Your task to perform on an android device: change the clock style Image 0: 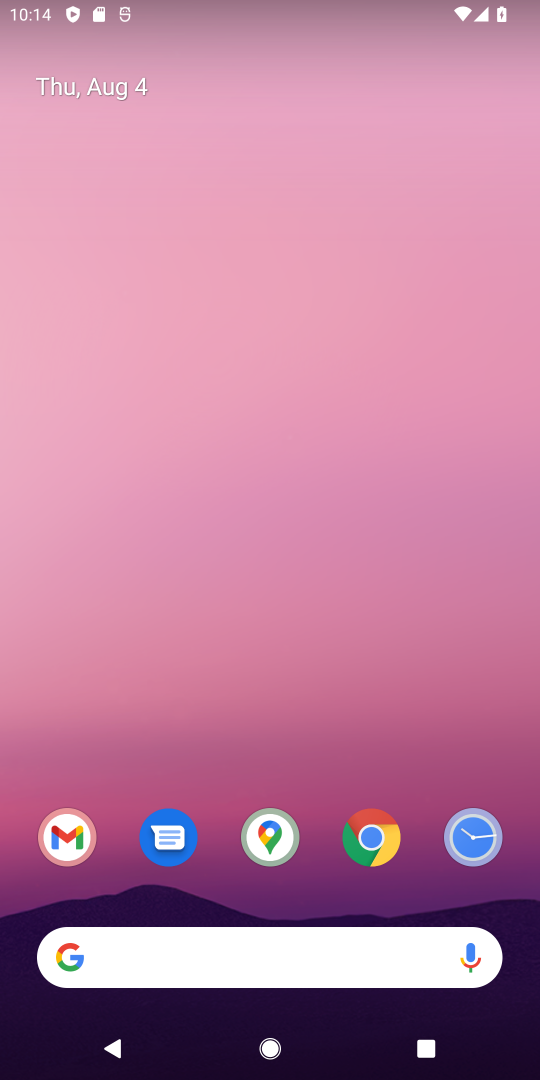
Step 0: drag from (408, 796) to (151, 74)
Your task to perform on an android device: change the clock style Image 1: 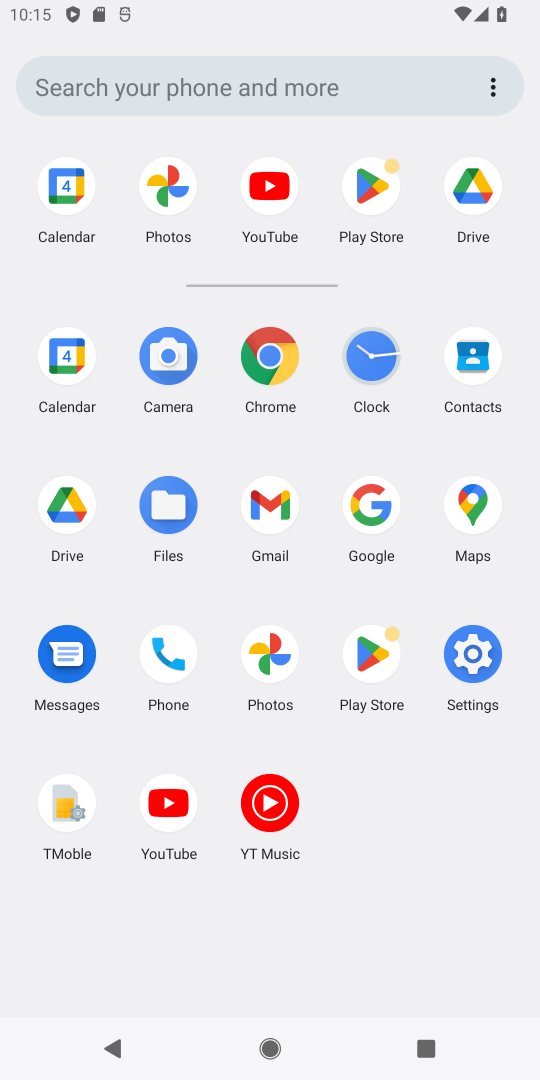
Step 1: click (374, 367)
Your task to perform on an android device: change the clock style Image 2: 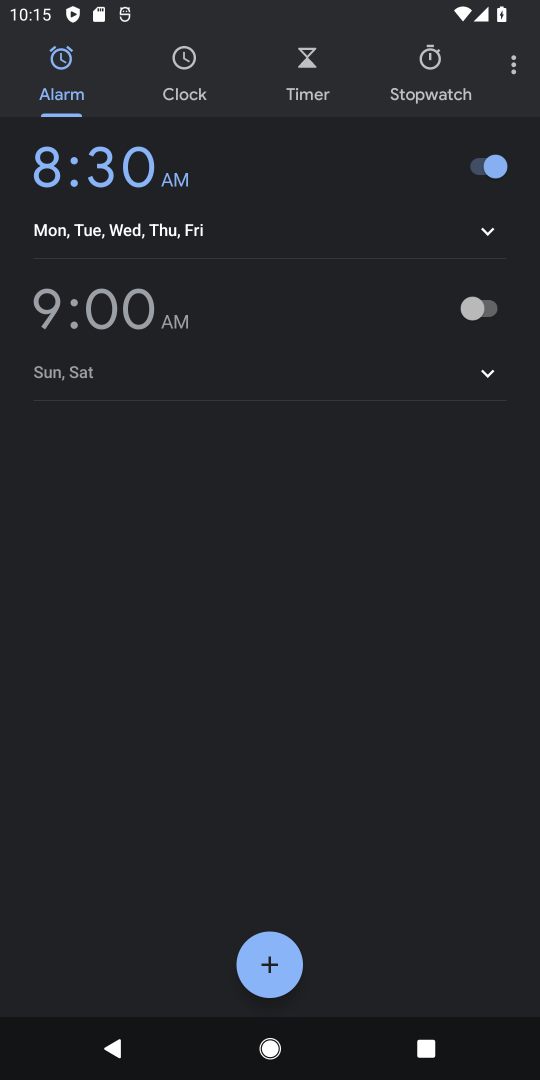
Step 2: click (514, 54)
Your task to perform on an android device: change the clock style Image 3: 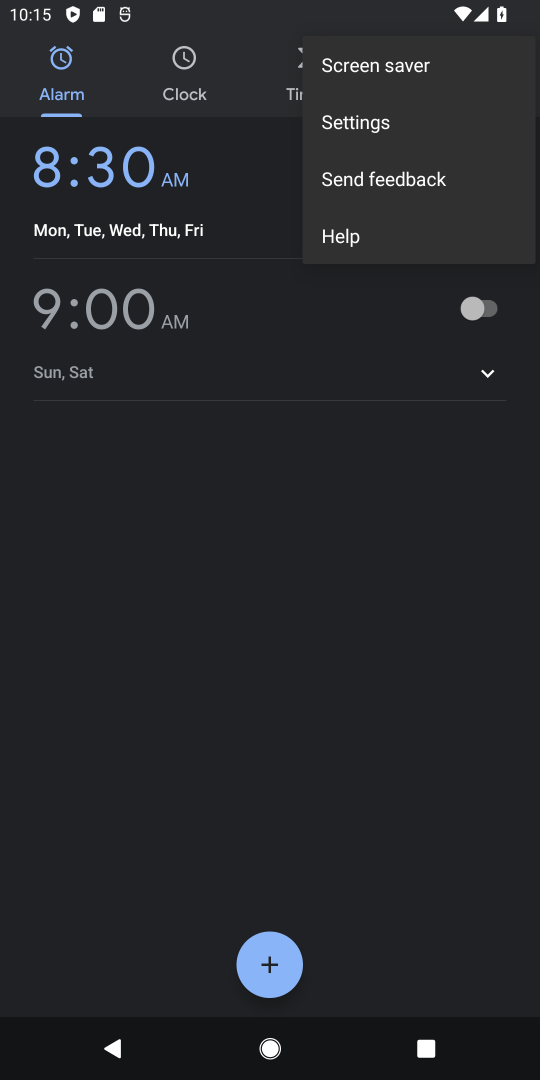
Step 3: click (408, 132)
Your task to perform on an android device: change the clock style Image 4: 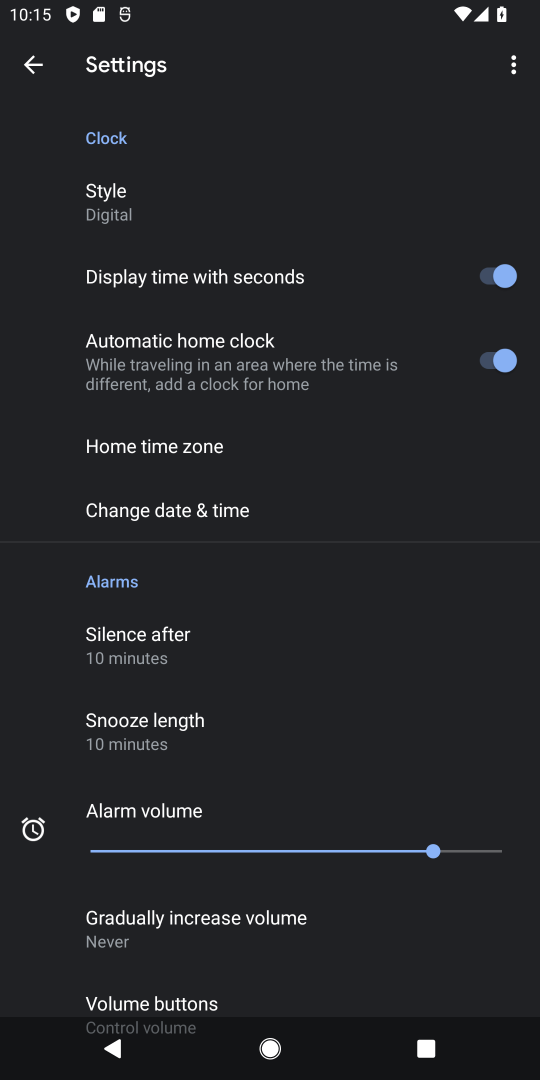
Step 4: click (121, 211)
Your task to perform on an android device: change the clock style Image 5: 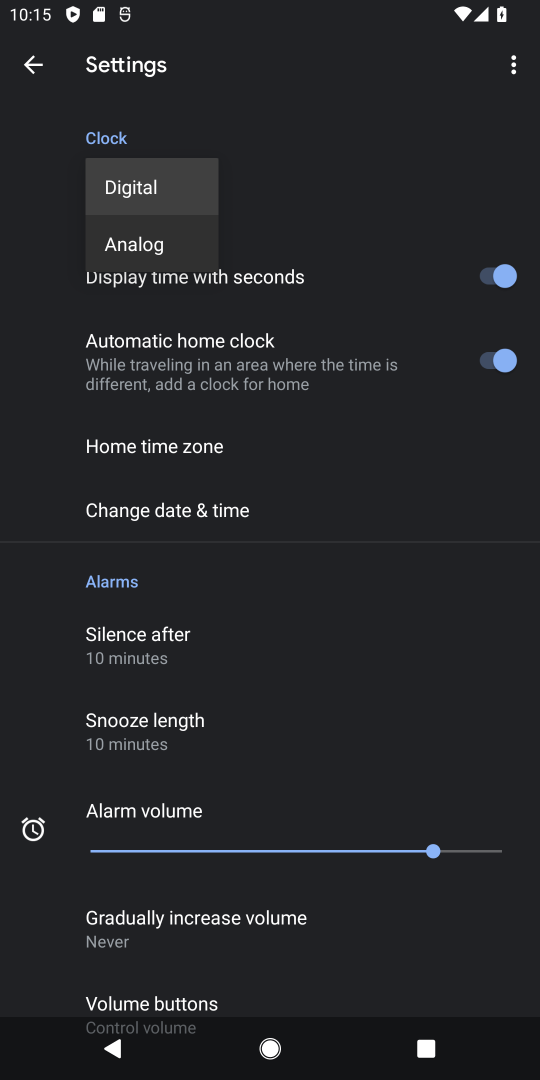
Step 5: click (151, 247)
Your task to perform on an android device: change the clock style Image 6: 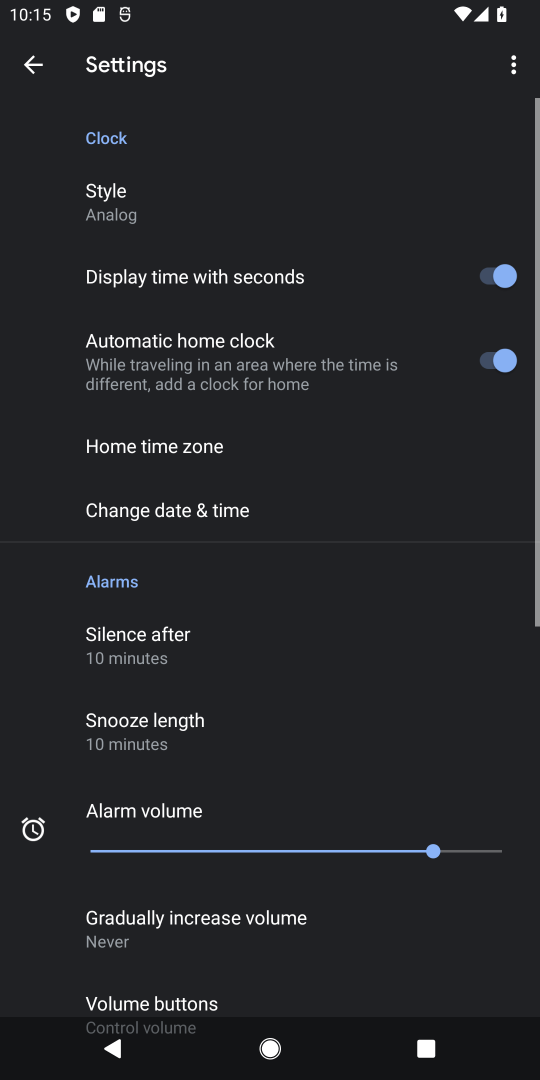
Step 6: task complete